Your task to perform on an android device: See recent photos Image 0: 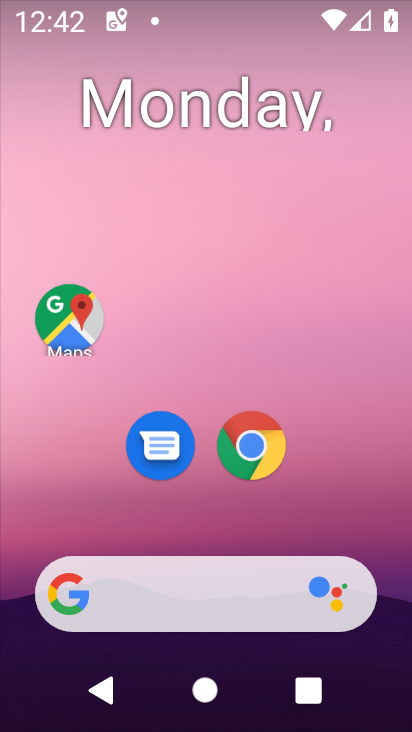
Step 0: drag from (313, 529) to (252, 23)
Your task to perform on an android device: See recent photos Image 1: 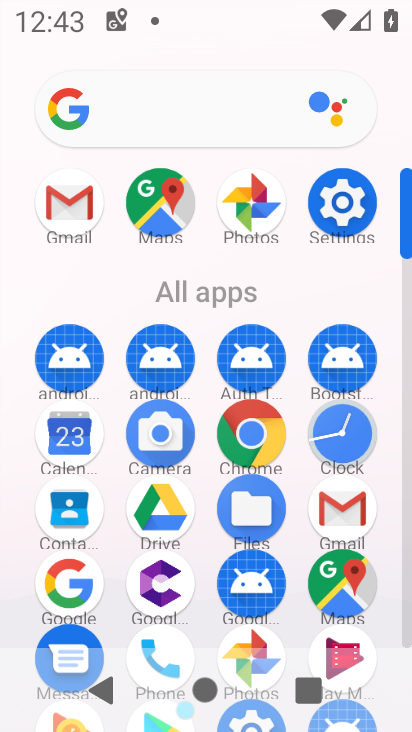
Step 1: click (251, 202)
Your task to perform on an android device: See recent photos Image 2: 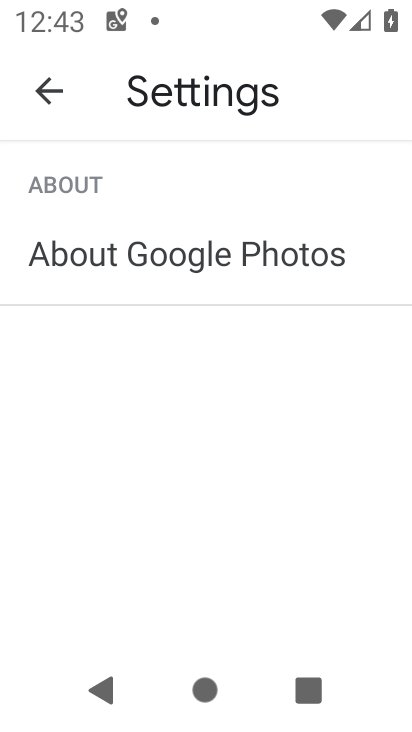
Step 2: click (46, 96)
Your task to perform on an android device: See recent photos Image 3: 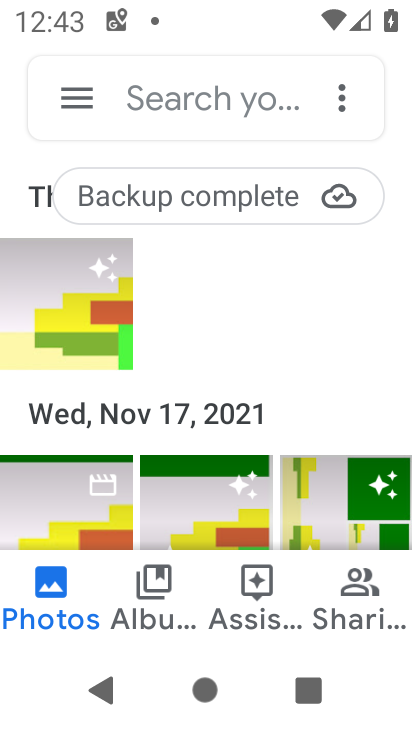
Step 3: click (82, 268)
Your task to perform on an android device: See recent photos Image 4: 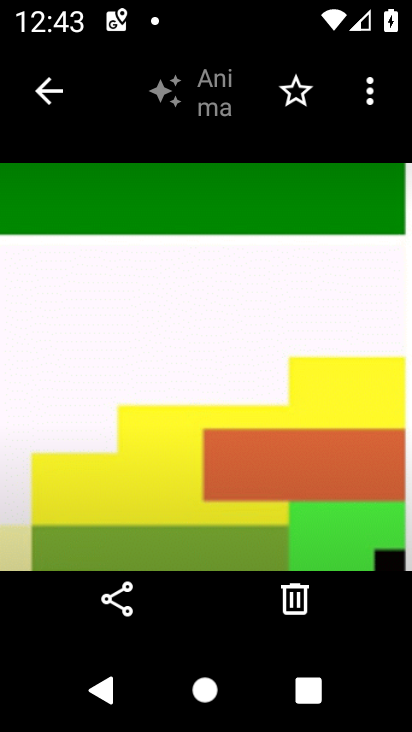
Step 4: task complete